Your task to perform on an android device: Go to network settings Image 0: 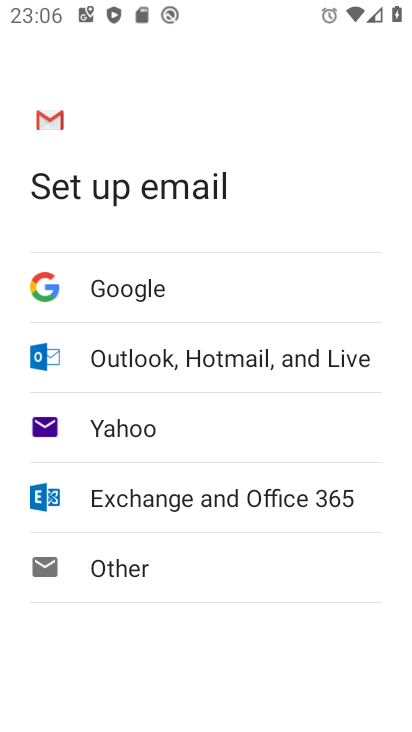
Step 0: press home button
Your task to perform on an android device: Go to network settings Image 1: 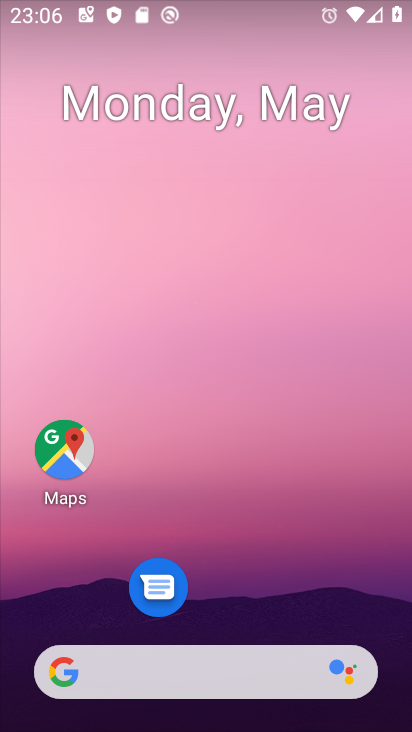
Step 1: drag from (234, 631) to (193, 87)
Your task to perform on an android device: Go to network settings Image 2: 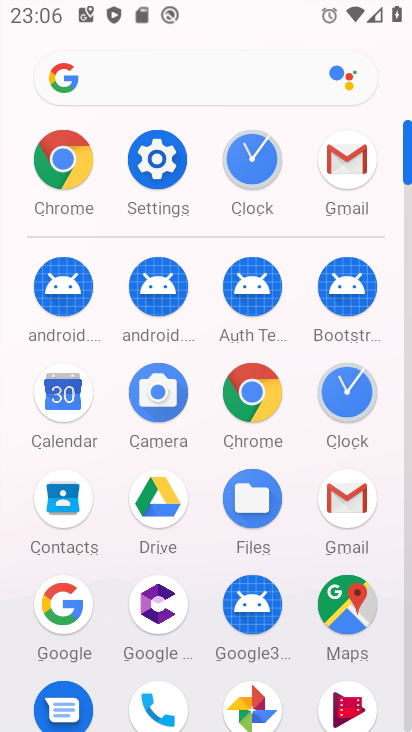
Step 2: click (168, 166)
Your task to perform on an android device: Go to network settings Image 3: 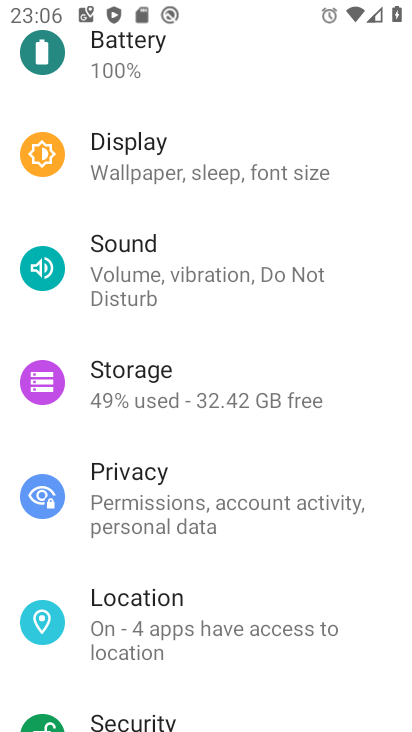
Step 3: drag from (170, 164) to (137, 632)
Your task to perform on an android device: Go to network settings Image 4: 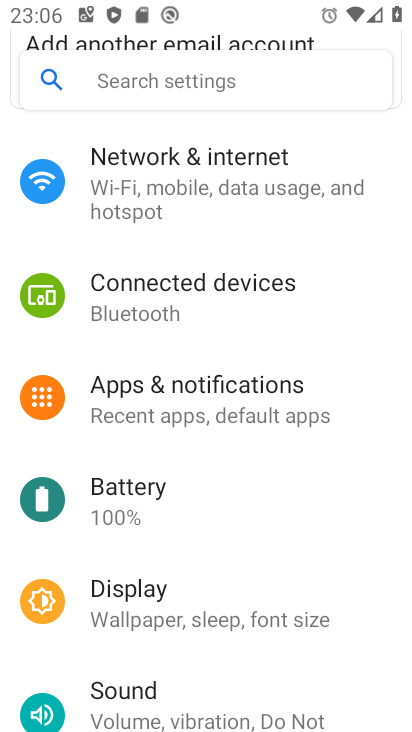
Step 4: click (142, 192)
Your task to perform on an android device: Go to network settings Image 5: 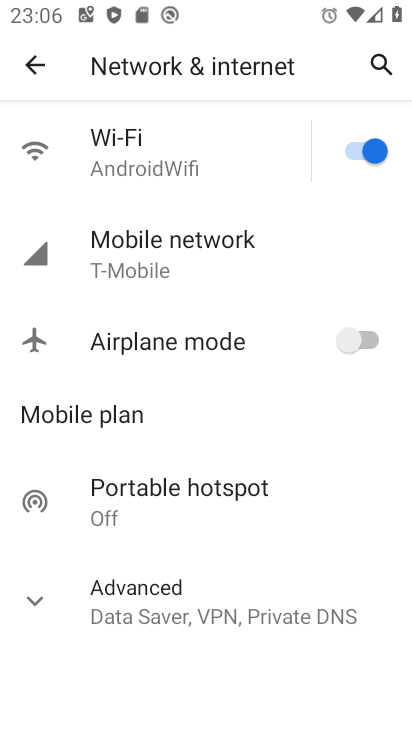
Step 5: click (165, 263)
Your task to perform on an android device: Go to network settings Image 6: 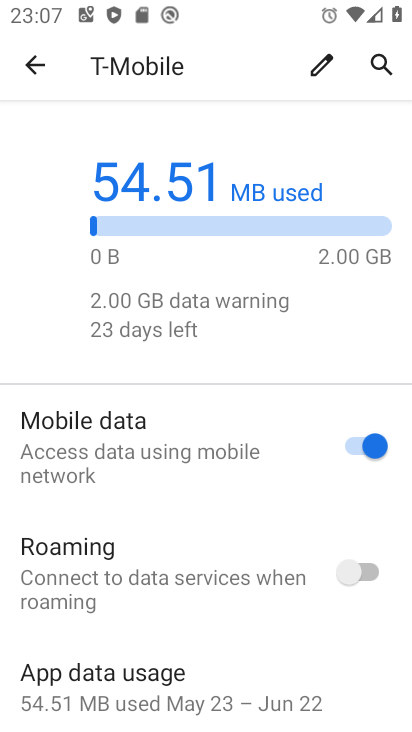
Step 6: task complete